Your task to perform on an android device: remove spam from my inbox in the gmail app Image 0: 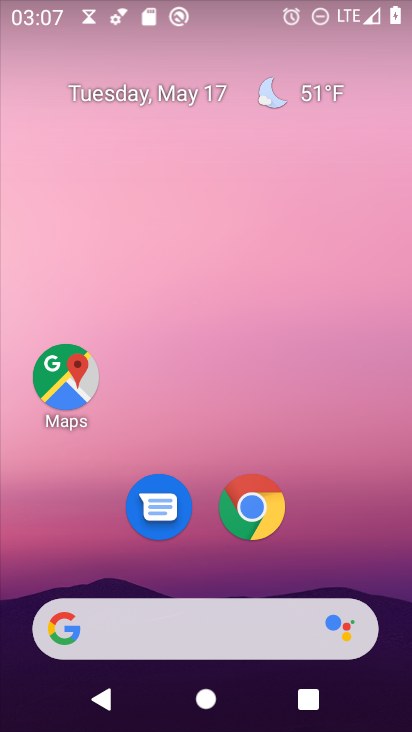
Step 0: drag from (334, 577) to (325, 68)
Your task to perform on an android device: remove spam from my inbox in the gmail app Image 1: 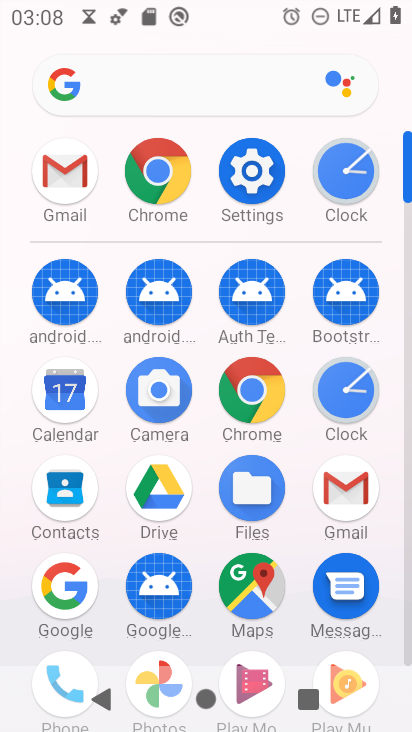
Step 1: click (345, 496)
Your task to perform on an android device: remove spam from my inbox in the gmail app Image 2: 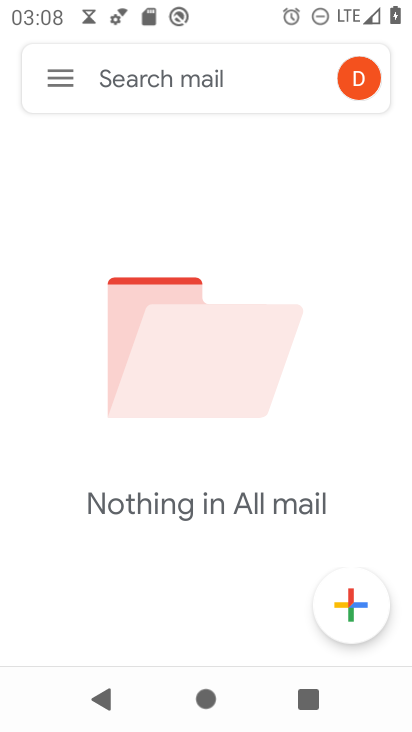
Step 2: click (47, 74)
Your task to perform on an android device: remove spam from my inbox in the gmail app Image 3: 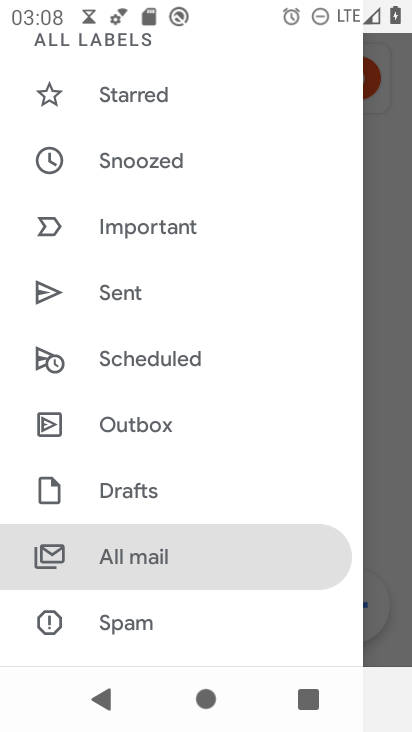
Step 3: click (162, 632)
Your task to perform on an android device: remove spam from my inbox in the gmail app Image 4: 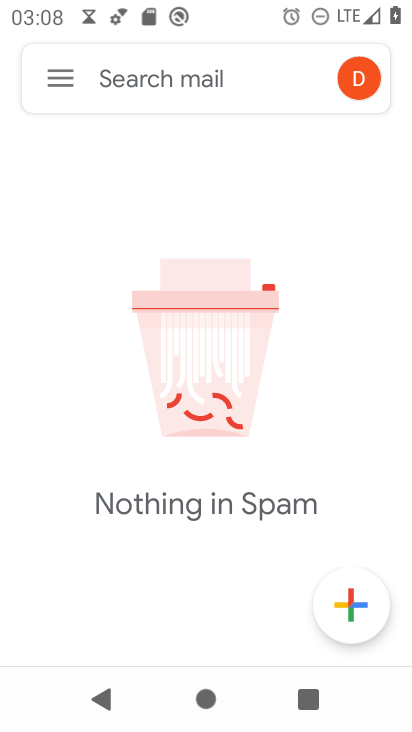
Step 4: task complete